Your task to perform on an android device: snooze an email in the gmail app Image 0: 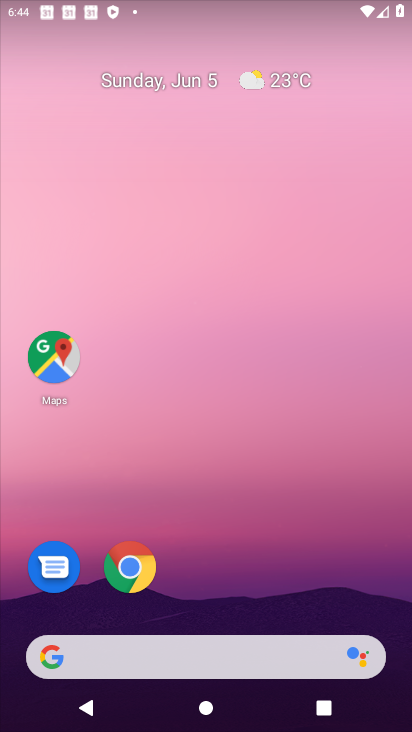
Step 0: drag from (365, 607) to (279, 16)
Your task to perform on an android device: snooze an email in the gmail app Image 1: 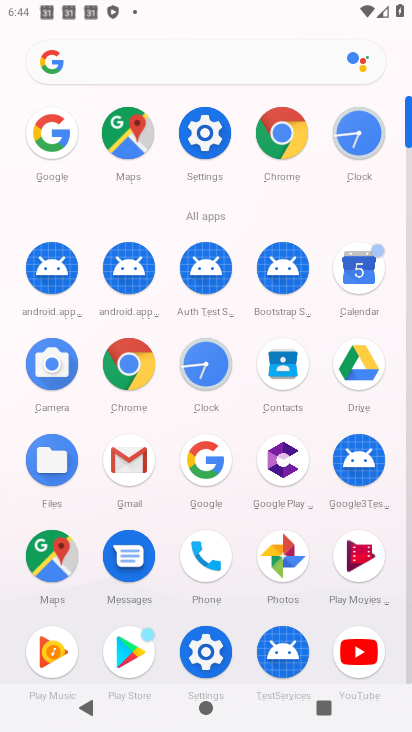
Step 1: click (132, 459)
Your task to perform on an android device: snooze an email in the gmail app Image 2: 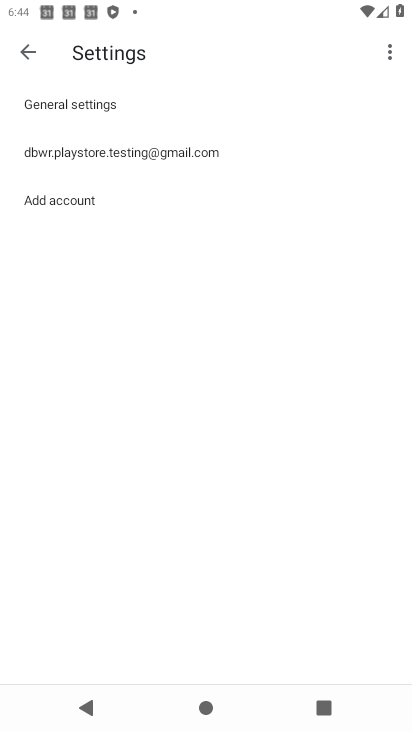
Step 2: press back button
Your task to perform on an android device: snooze an email in the gmail app Image 3: 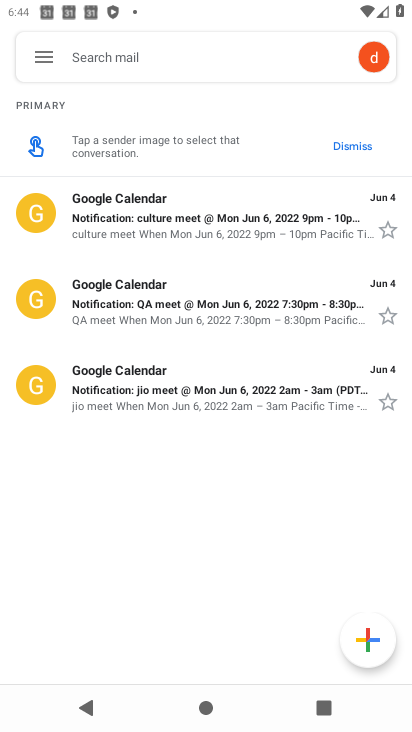
Step 3: click (39, 57)
Your task to perform on an android device: snooze an email in the gmail app Image 4: 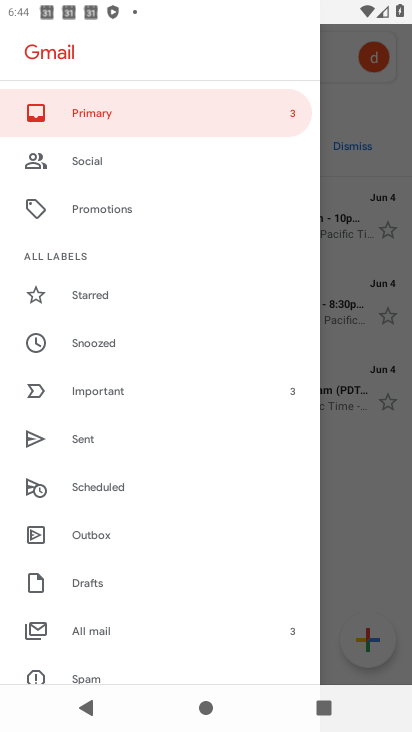
Step 4: click (101, 348)
Your task to perform on an android device: snooze an email in the gmail app Image 5: 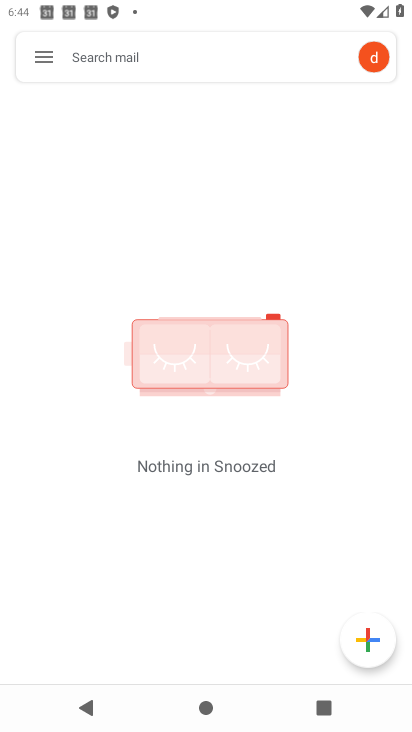
Step 5: task complete